Your task to perform on an android device: Open location settings Image 0: 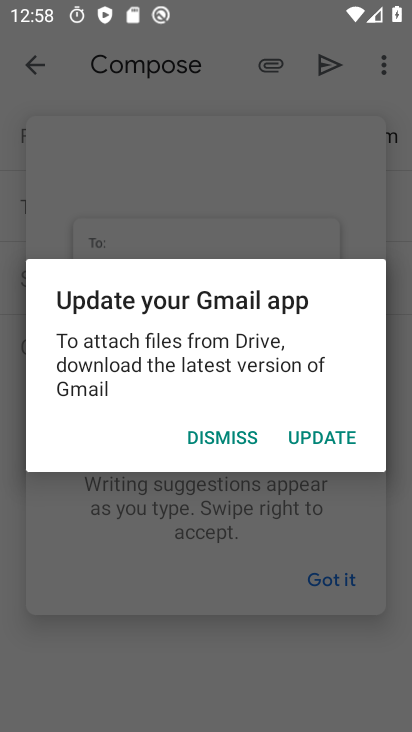
Step 0: press home button
Your task to perform on an android device: Open location settings Image 1: 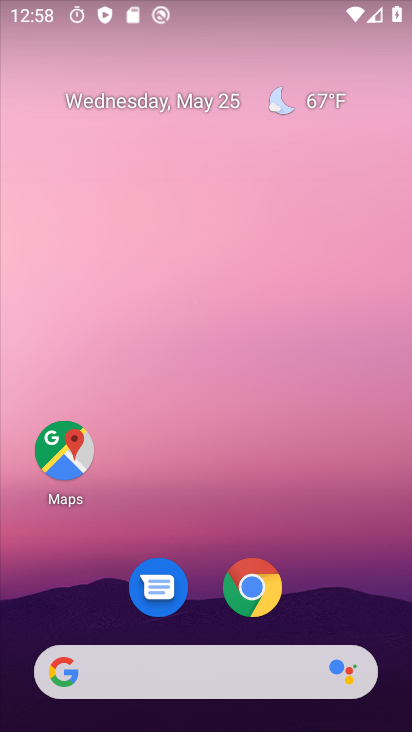
Step 1: click (236, 82)
Your task to perform on an android device: Open location settings Image 2: 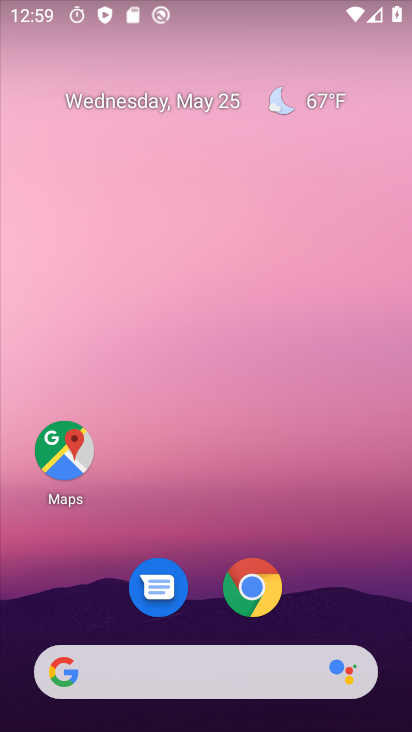
Step 2: drag from (207, 730) to (212, 76)
Your task to perform on an android device: Open location settings Image 3: 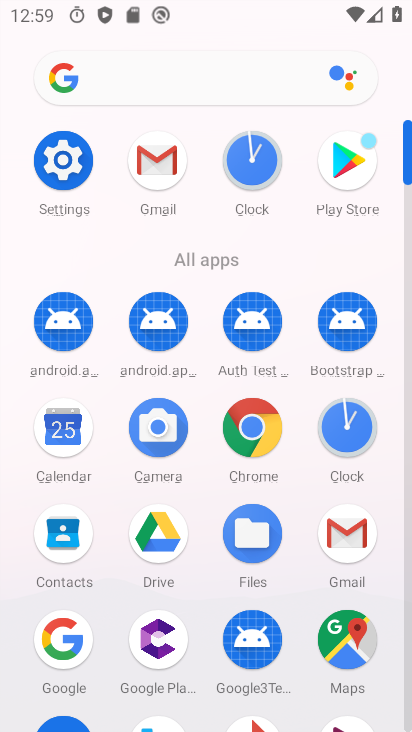
Step 3: click (65, 163)
Your task to perform on an android device: Open location settings Image 4: 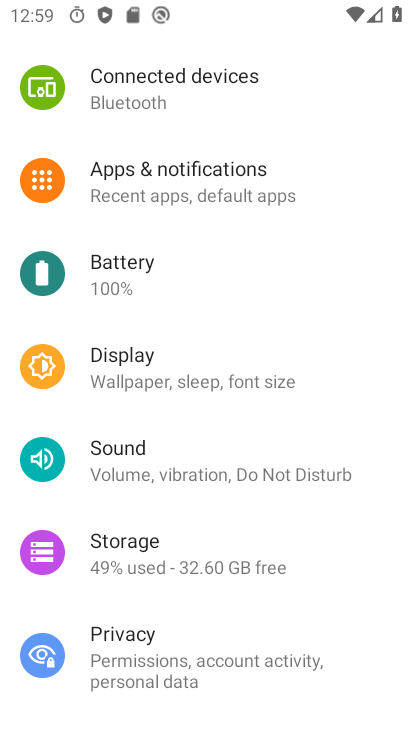
Step 4: drag from (191, 660) to (185, 203)
Your task to perform on an android device: Open location settings Image 5: 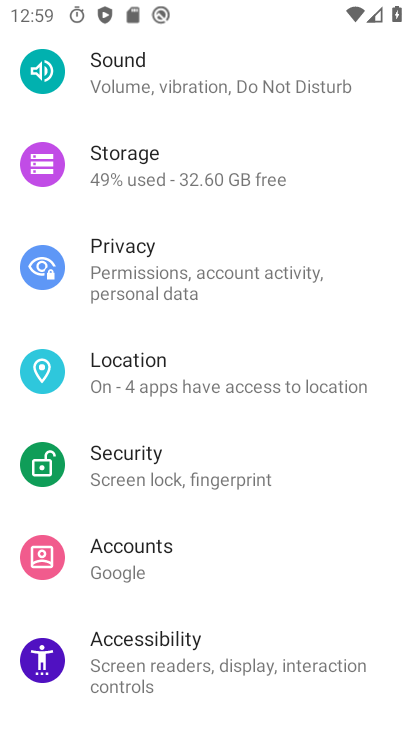
Step 5: click (165, 366)
Your task to perform on an android device: Open location settings Image 6: 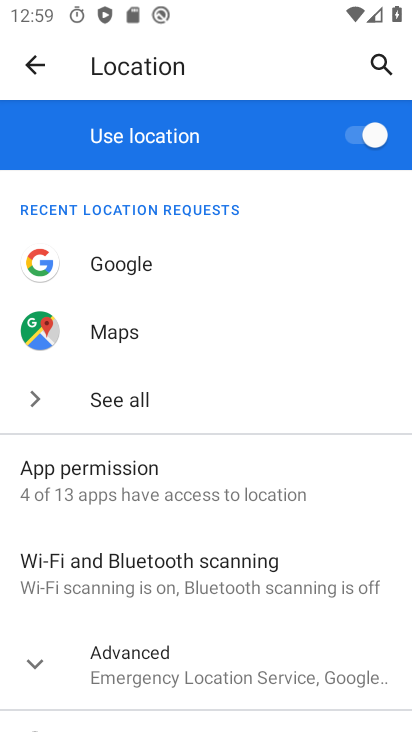
Step 6: task complete